Your task to perform on an android device: turn on javascript in the chrome app Image 0: 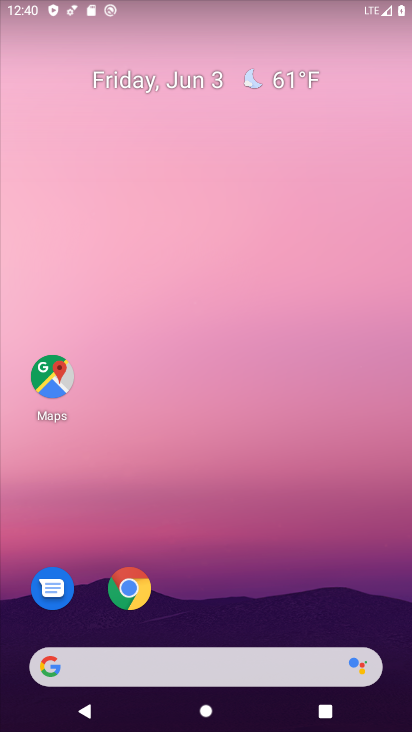
Step 0: click (278, 159)
Your task to perform on an android device: turn on javascript in the chrome app Image 1: 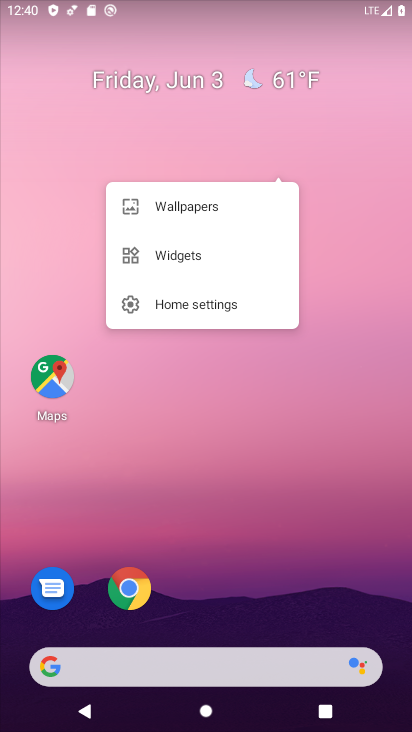
Step 1: drag from (239, 565) to (249, 1)
Your task to perform on an android device: turn on javascript in the chrome app Image 2: 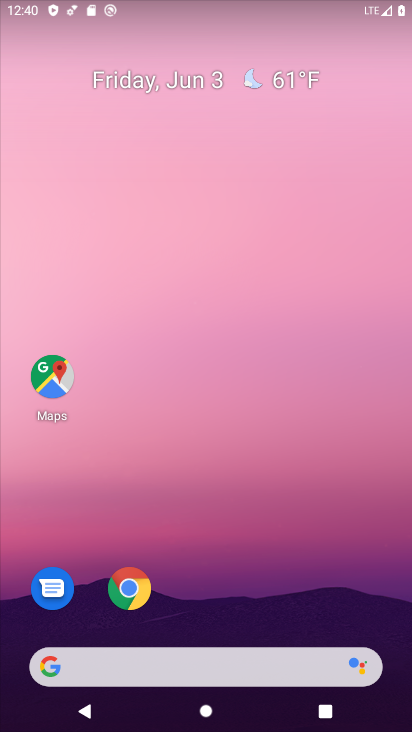
Step 2: drag from (206, 623) to (255, 178)
Your task to perform on an android device: turn on javascript in the chrome app Image 3: 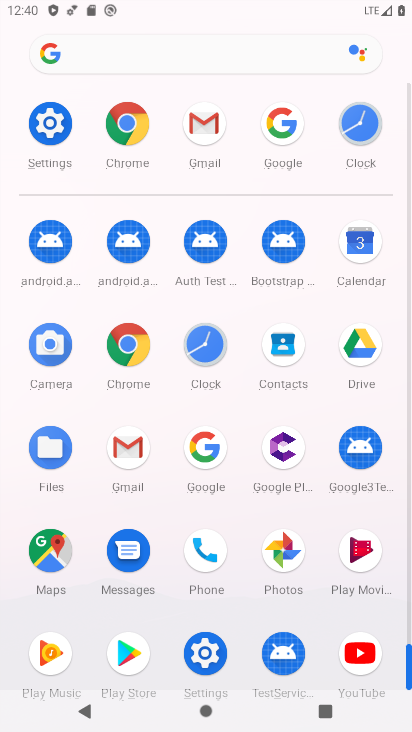
Step 3: click (136, 330)
Your task to perform on an android device: turn on javascript in the chrome app Image 4: 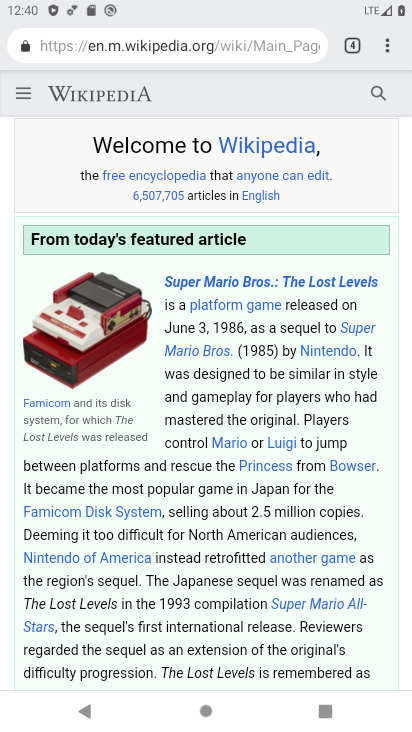
Step 4: click (134, 333)
Your task to perform on an android device: turn on javascript in the chrome app Image 5: 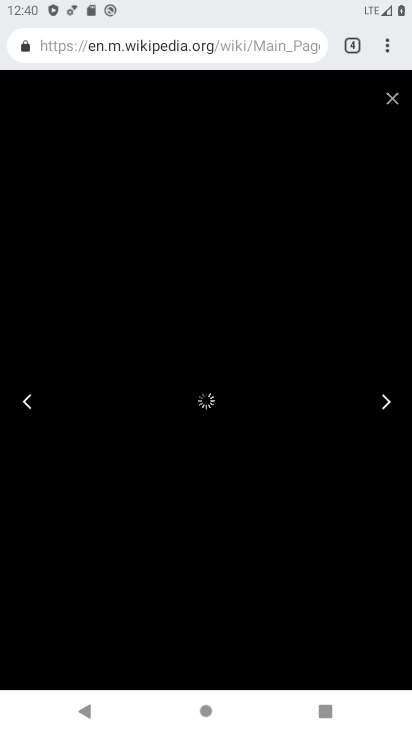
Step 5: click (371, 53)
Your task to perform on an android device: turn on javascript in the chrome app Image 6: 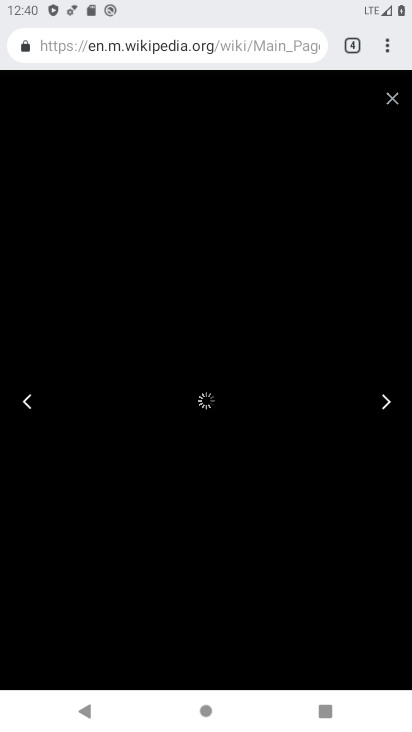
Step 6: click (388, 49)
Your task to perform on an android device: turn on javascript in the chrome app Image 7: 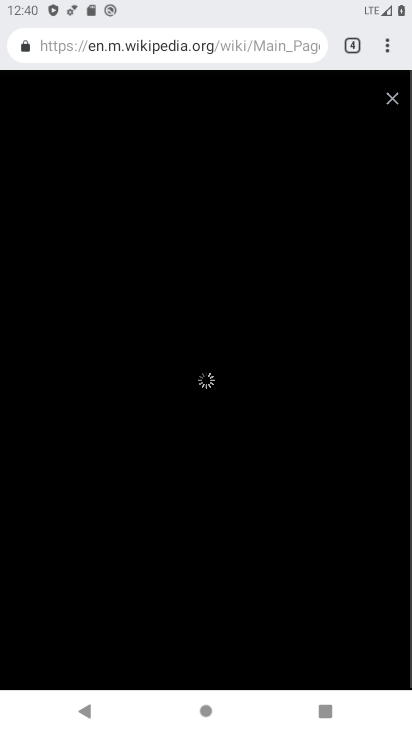
Step 7: click (390, 48)
Your task to perform on an android device: turn on javascript in the chrome app Image 8: 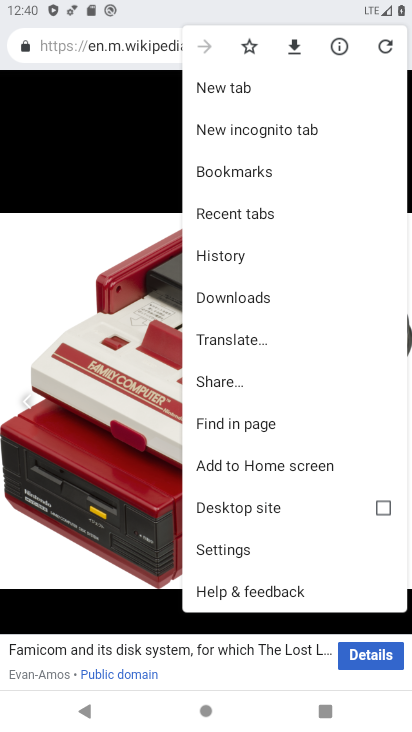
Step 8: click (265, 551)
Your task to perform on an android device: turn on javascript in the chrome app Image 9: 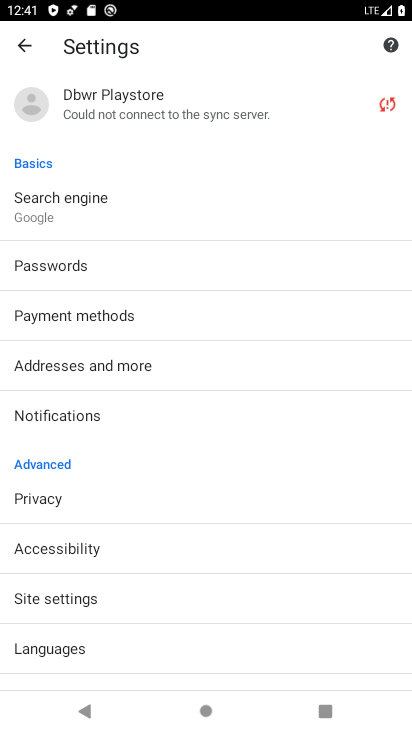
Step 9: click (162, 606)
Your task to perform on an android device: turn on javascript in the chrome app Image 10: 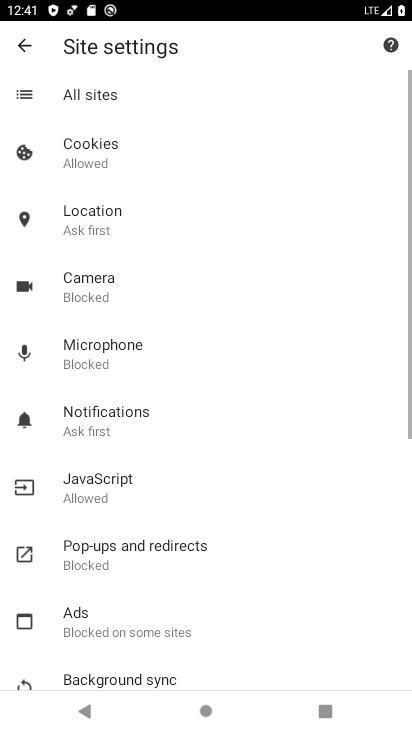
Step 10: click (143, 597)
Your task to perform on an android device: turn on javascript in the chrome app Image 11: 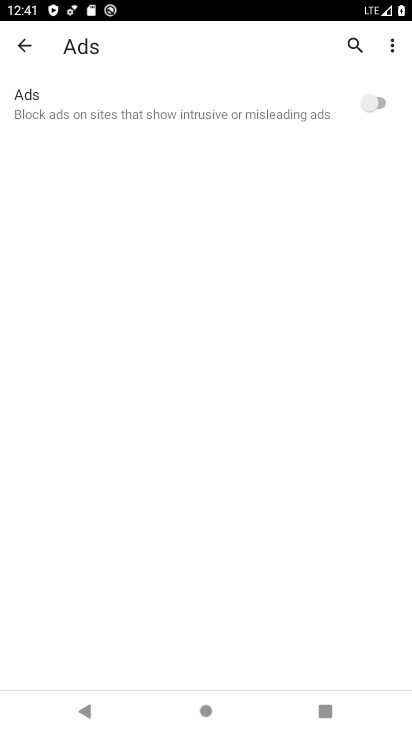
Step 11: press back button
Your task to perform on an android device: turn on javascript in the chrome app Image 12: 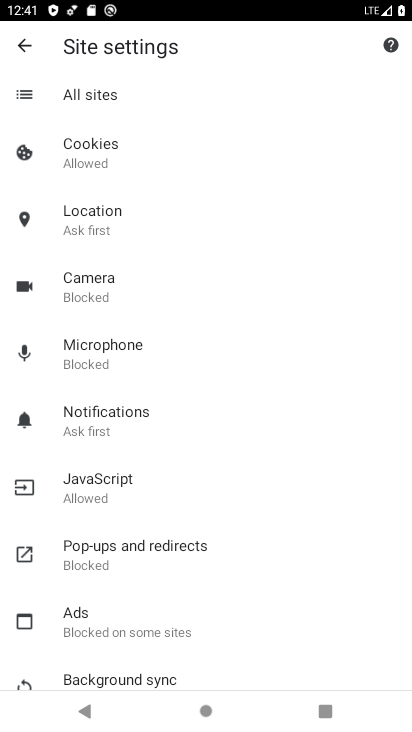
Step 12: click (171, 497)
Your task to perform on an android device: turn on javascript in the chrome app Image 13: 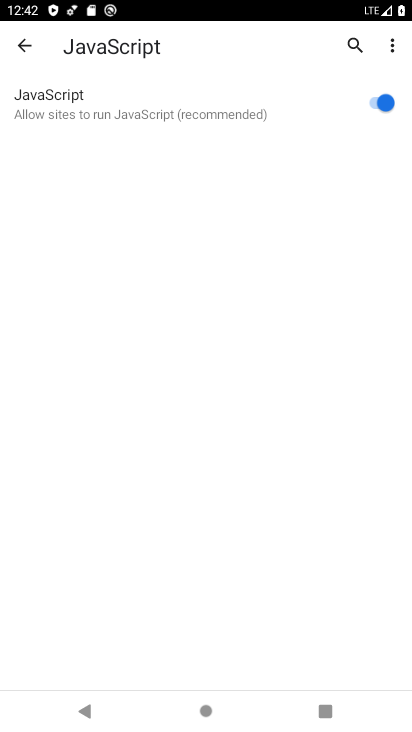
Step 13: task complete